Your task to perform on an android device: show emergency info Image 0: 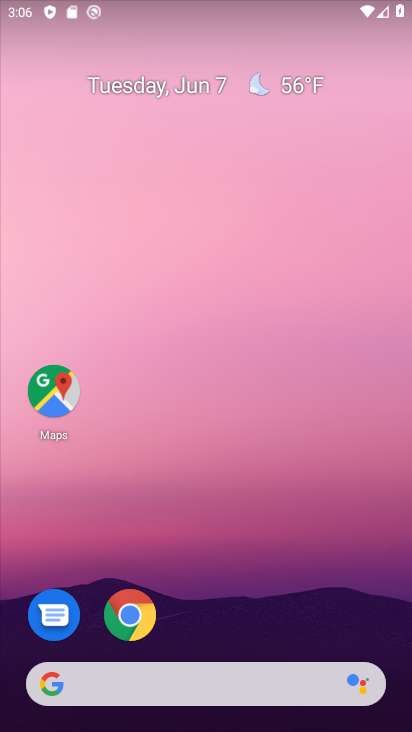
Step 0: drag from (203, 553) to (273, 264)
Your task to perform on an android device: show emergency info Image 1: 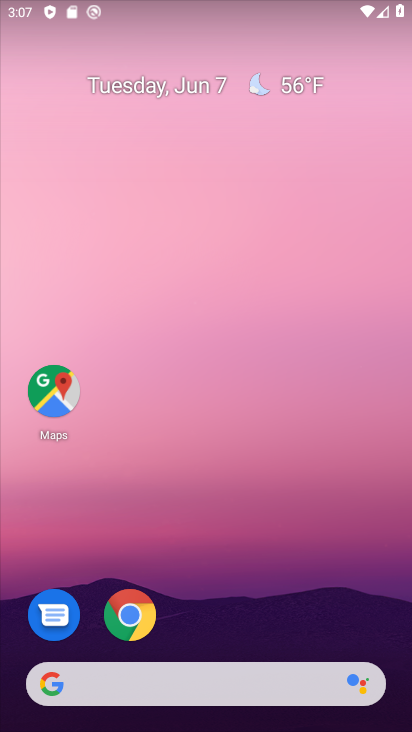
Step 1: drag from (234, 661) to (308, 59)
Your task to perform on an android device: show emergency info Image 2: 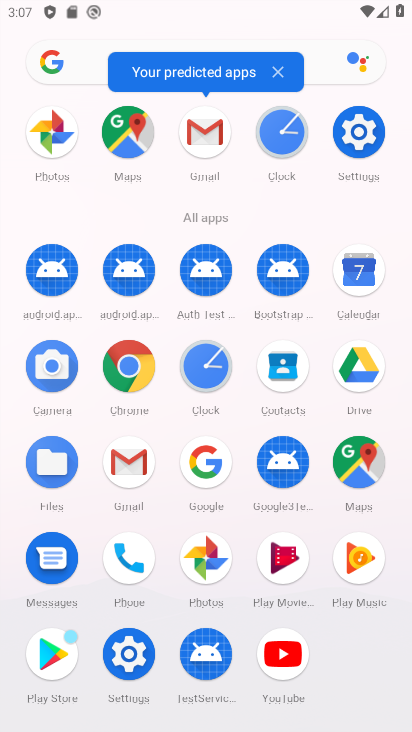
Step 2: click (364, 132)
Your task to perform on an android device: show emergency info Image 3: 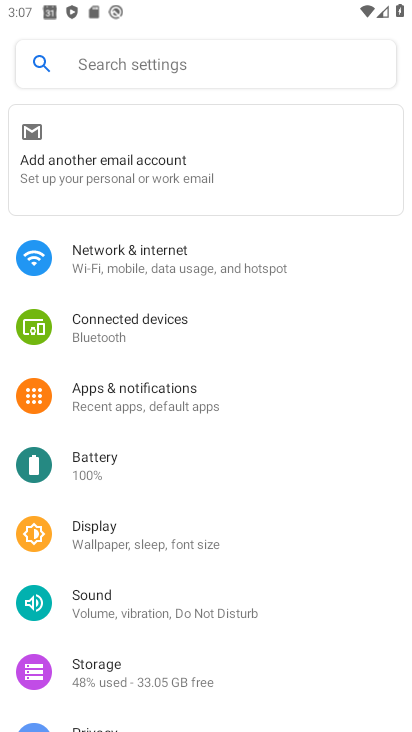
Step 3: drag from (247, 700) to (359, 174)
Your task to perform on an android device: show emergency info Image 4: 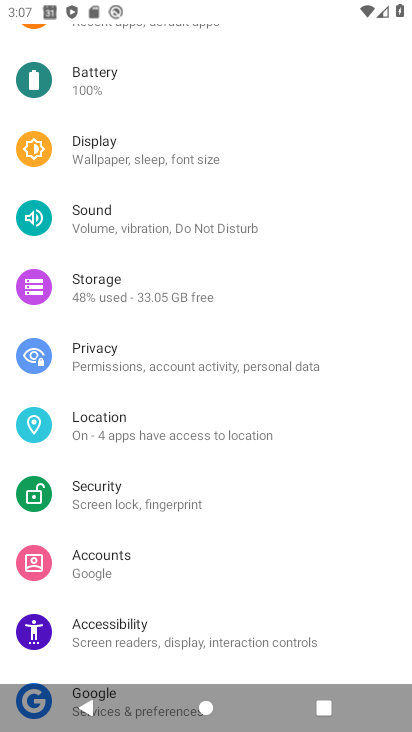
Step 4: drag from (170, 650) to (205, 265)
Your task to perform on an android device: show emergency info Image 5: 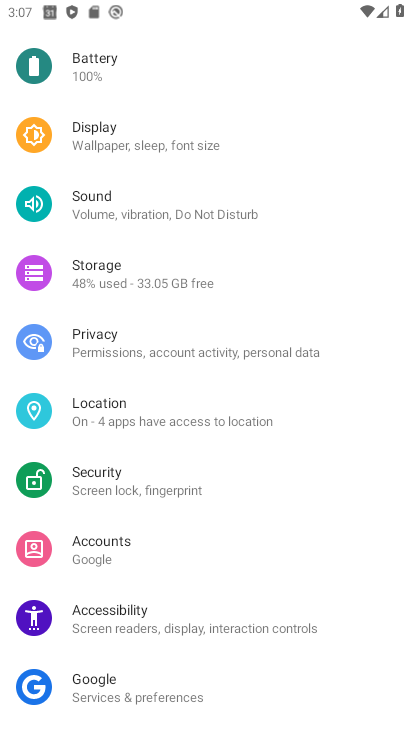
Step 5: drag from (110, 698) to (176, 238)
Your task to perform on an android device: show emergency info Image 6: 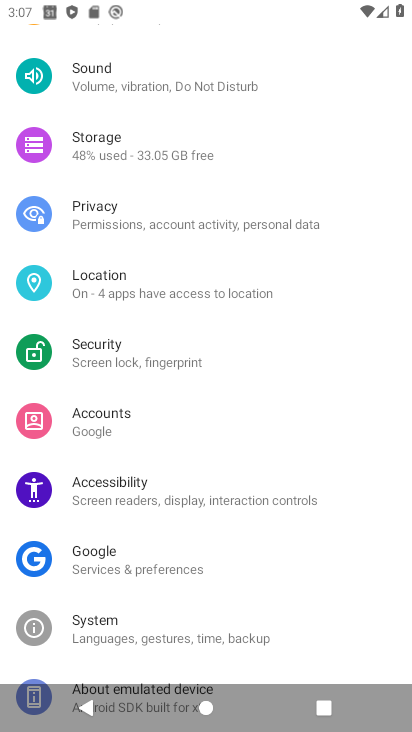
Step 6: drag from (182, 610) to (241, 212)
Your task to perform on an android device: show emergency info Image 7: 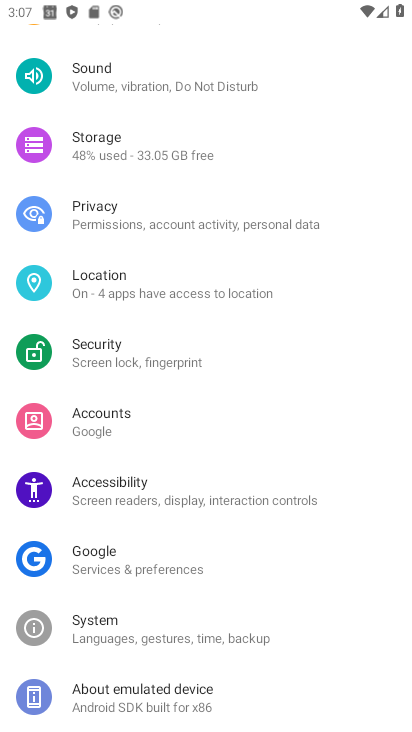
Step 7: click (164, 686)
Your task to perform on an android device: show emergency info Image 8: 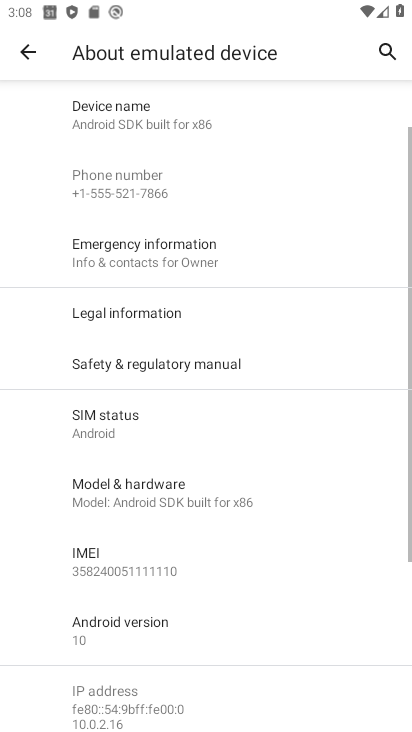
Step 8: task complete